Your task to perform on an android device: Open sound settings Image 0: 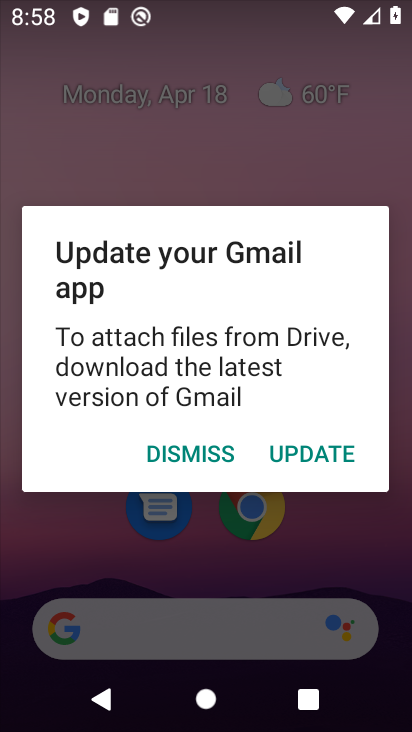
Step 0: press home button
Your task to perform on an android device: Open sound settings Image 1: 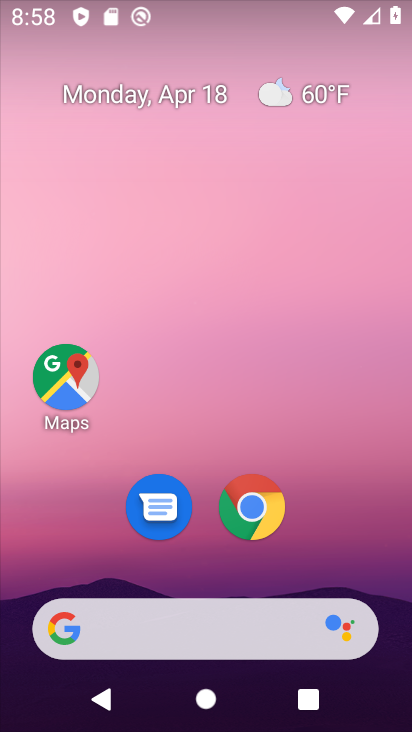
Step 1: drag from (289, 543) to (290, 74)
Your task to perform on an android device: Open sound settings Image 2: 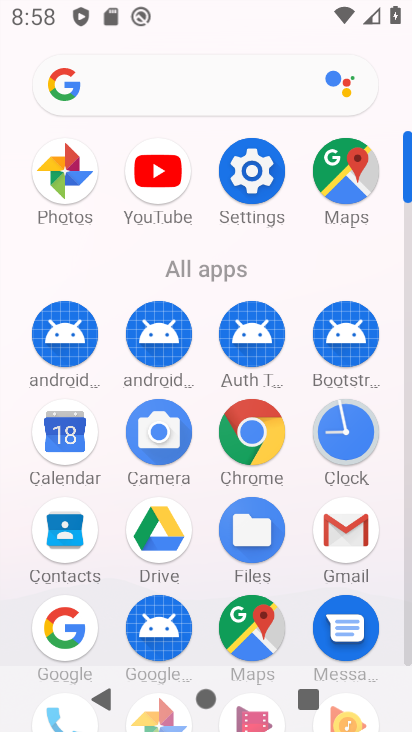
Step 2: click (251, 200)
Your task to perform on an android device: Open sound settings Image 3: 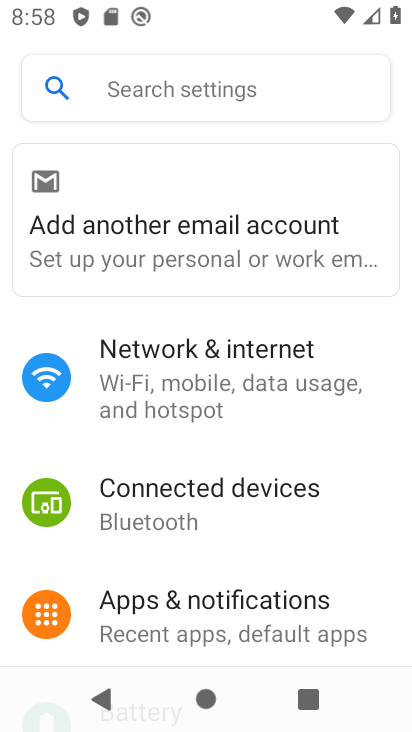
Step 3: drag from (259, 611) to (238, 295)
Your task to perform on an android device: Open sound settings Image 4: 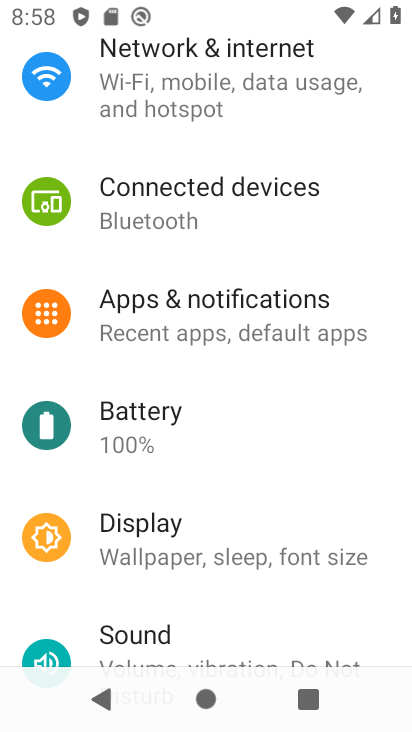
Step 4: drag from (242, 585) to (220, 409)
Your task to perform on an android device: Open sound settings Image 5: 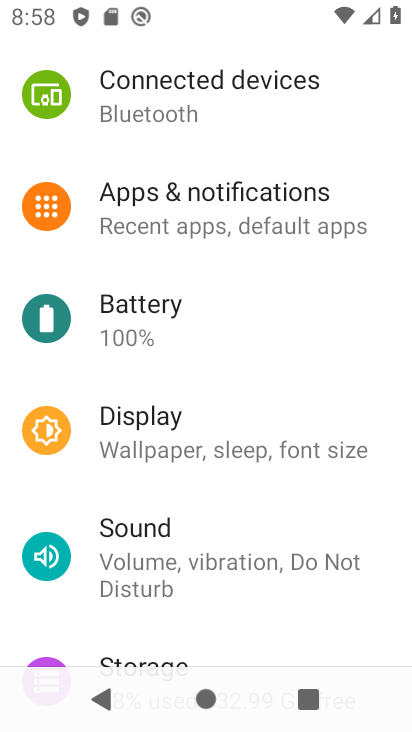
Step 5: click (213, 551)
Your task to perform on an android device: Open sound settings Image 6: 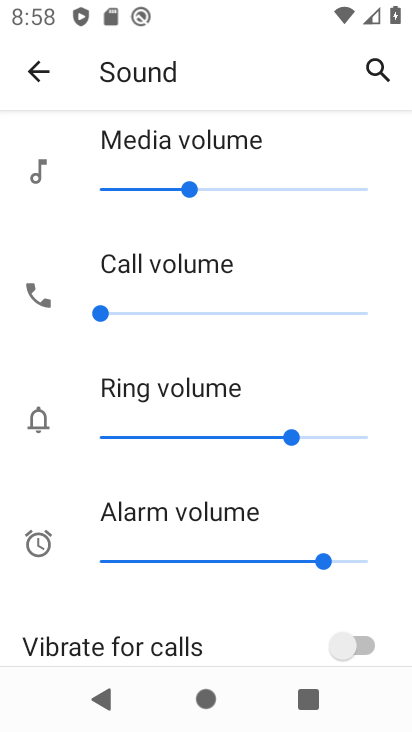
Step 6: task complete